Your task to perform on an android device: Show the shopping cart on walmart.com. Image 0: 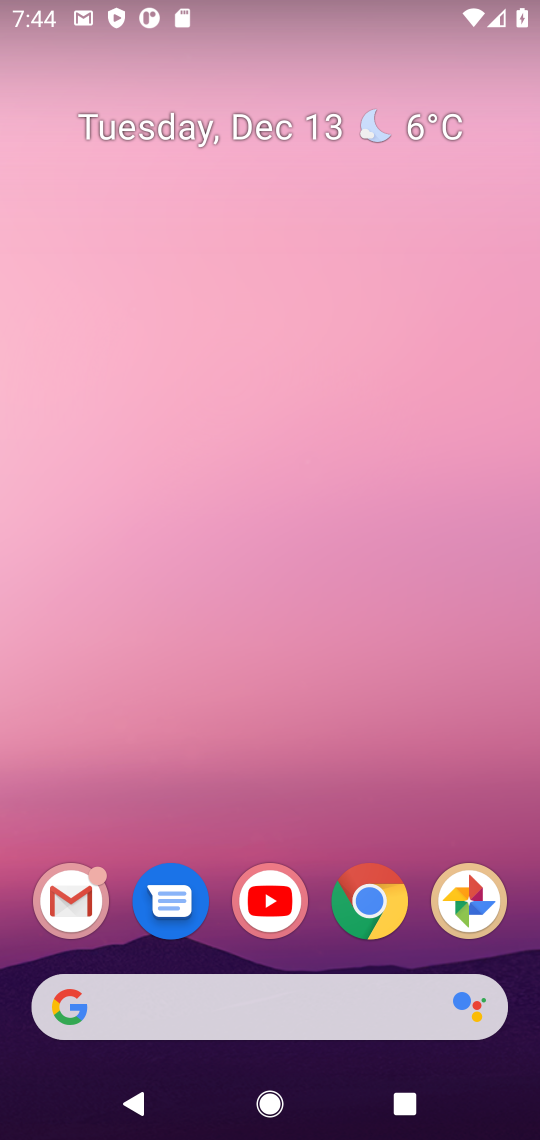
Step 0: click (372, 902)
Your task to perform on an android device: Show the shopping cart on walmart.com. Image 1: 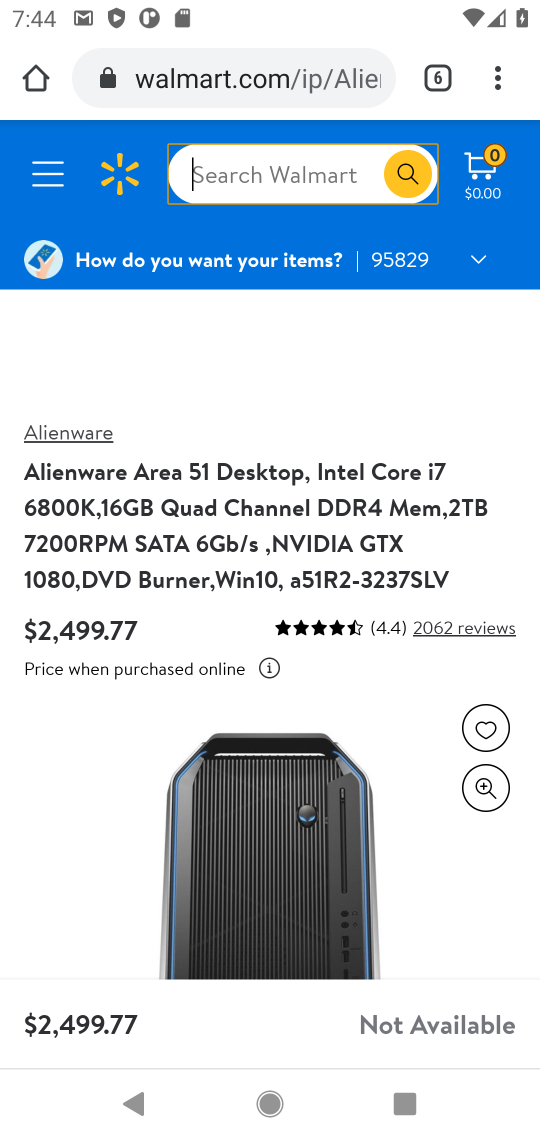
Step 1: click (486, 182)
Your task to perform on an android device: Show the shopping cart on walmart.com. Image 2: 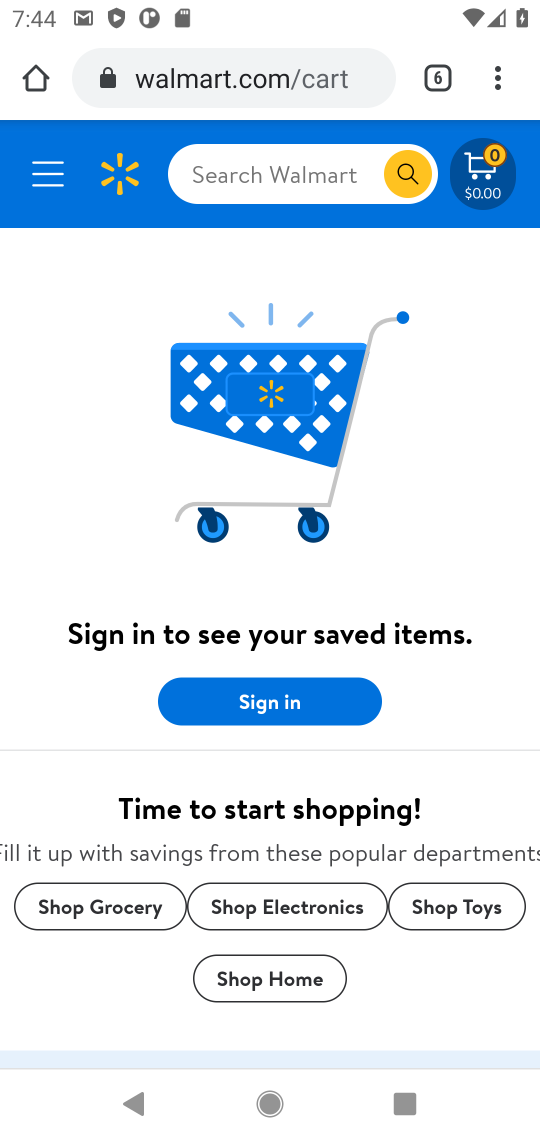
Step 2: task complete